Your task to perform on an android device: turn smart compose on in the gmail app Image 0: 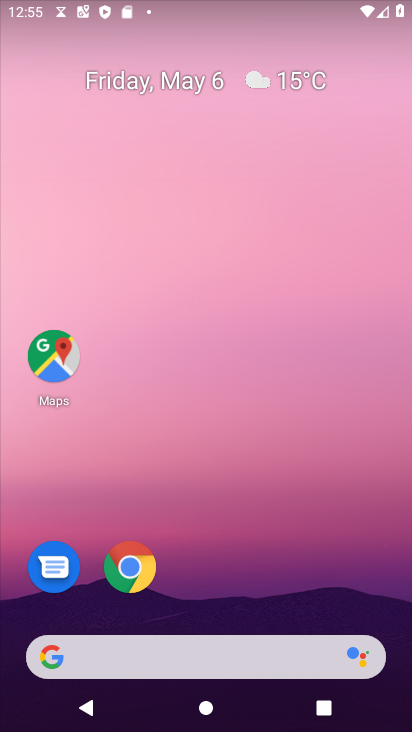
Step 0: drag from (260, 533) to (335, 4)
Your task to perform on an android device: turn smart compose on in the gmail app Image 1: 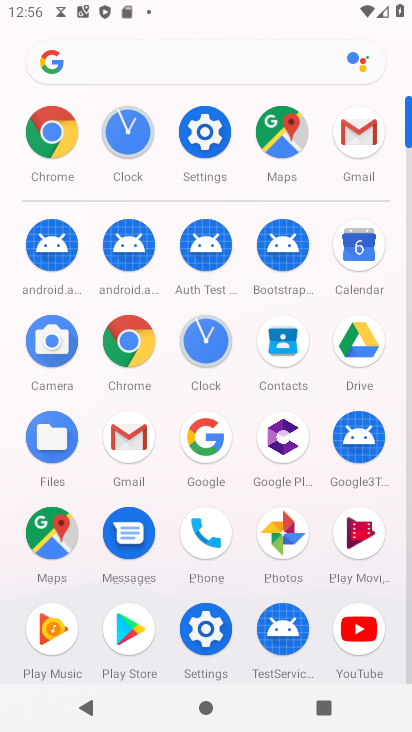
Step 1: click (370, 139)
Your task to perform on an android device: turn smart compose on in the gmail app Image 2: 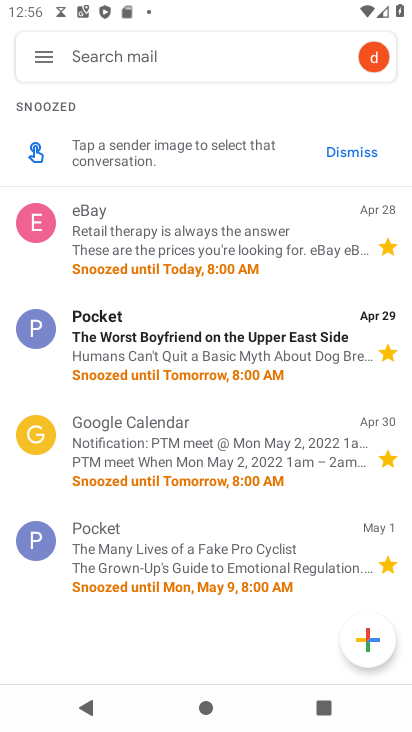
Step 2: click (43, 55)
Your task to perform on an android device: turn smart compose on in the gmail app Image 3: 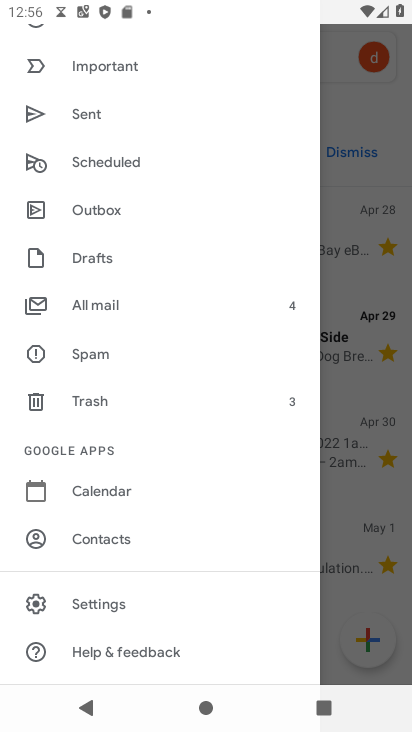
Step 3: click (104, 600)
Your task to perform on an android device: turn smart compose on in the gmail app Image 4: 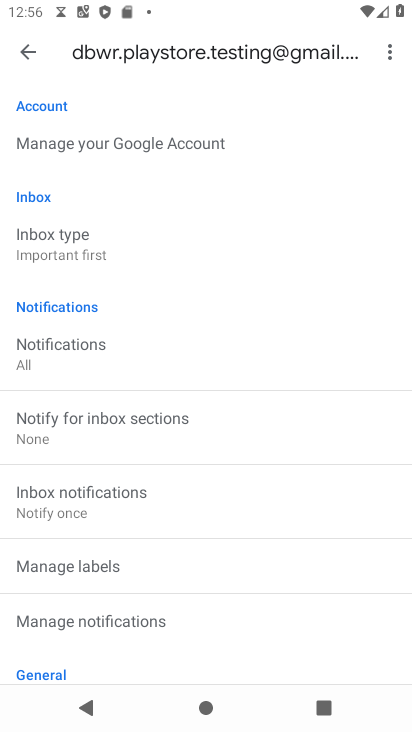
Step 4: task complete